Your task to perform on an android device: Open sound settings Image 0: 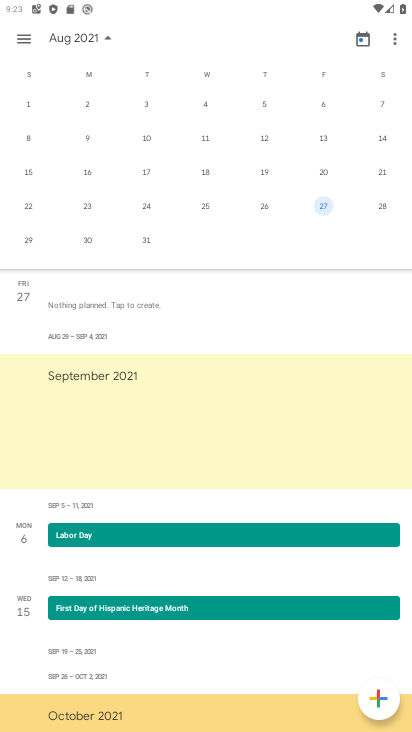
Step 0: press home button
Your task to perform on an android device: Open sound settings Image 1: 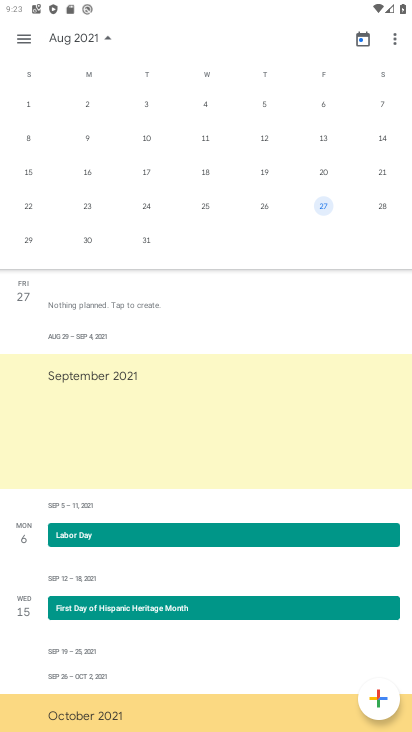
Step 1: drag from (244, 593) to (297, 237)
Your task to perform on an android device: Open sound settings Image 2: 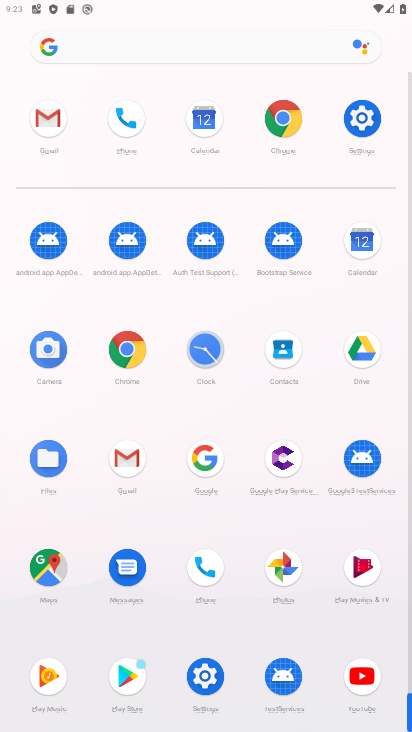
Step 2: click (361, 119)
Your task to perform on an android device: Open sound settings Image 3: 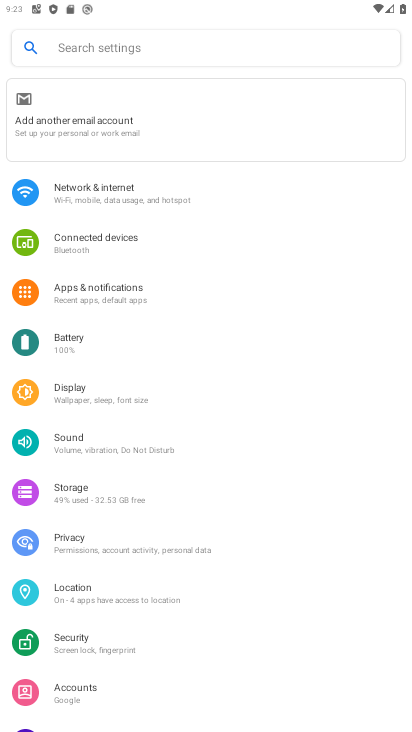
Step 3: click (109, 443)
Your task to perform on an android device: Open sound settings Image 4: 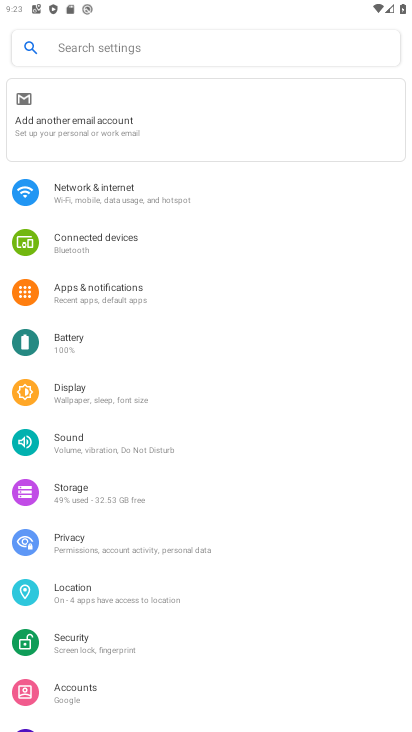
Step 4: click (108, 441)
Your task to perform on an android device: Open sound settings Image 5: 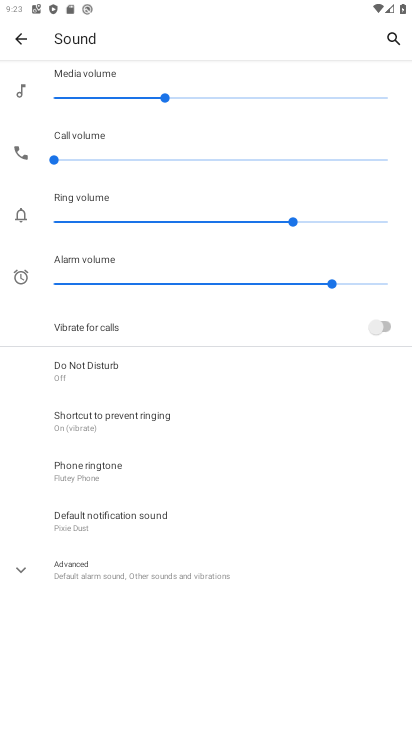
Step 5: task complete